Your task to perform on an android device: search for starred emails in the gmail app Image 0: 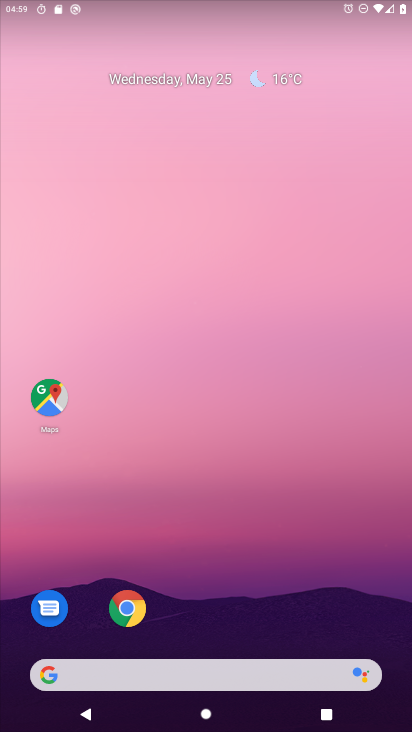
Step 0: drag from (275, 555) to (280, 77)
Your task to perform on an android device: search for starred emails in the gmail app Image 1: 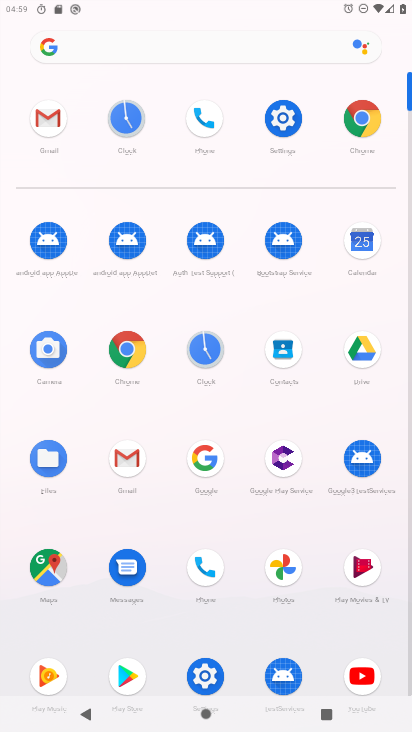
Step 1: click (41, 125)
Your task to perform on an android device: search for starred emails in the gmail app Image 2: 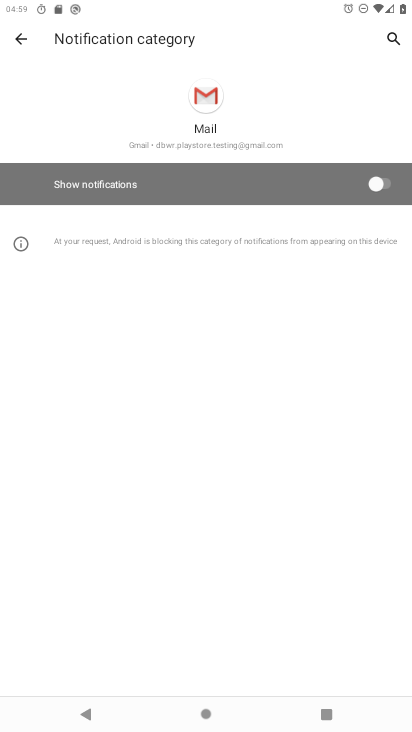
Step 2: click (22, 32)
Your task to perform on an android device: search for starred emails in the gmail app Image 3: 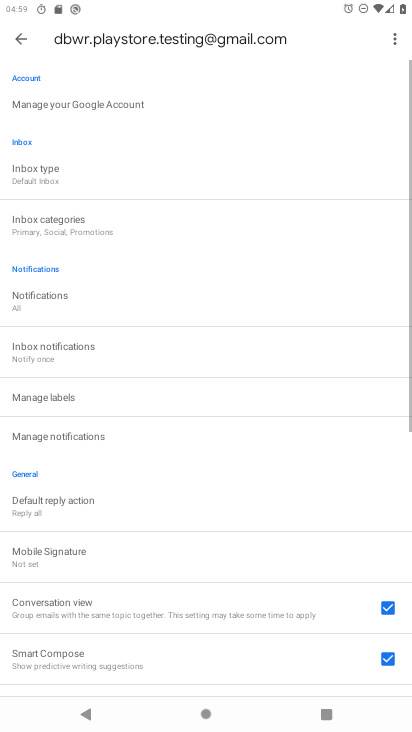
Step 3: click (23, 33)
Your task to perform on an android device: search for starred emails in the gmail app Image 4: 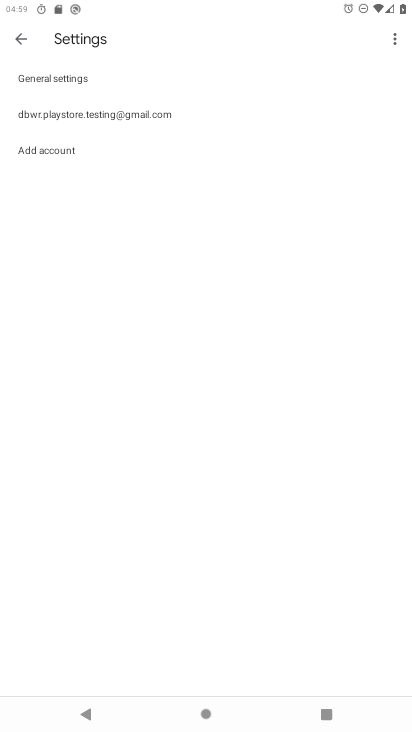
Step 4: click (23, 33)
Your task to perform on an android device: search for starred emails in the gmail app Image 5: 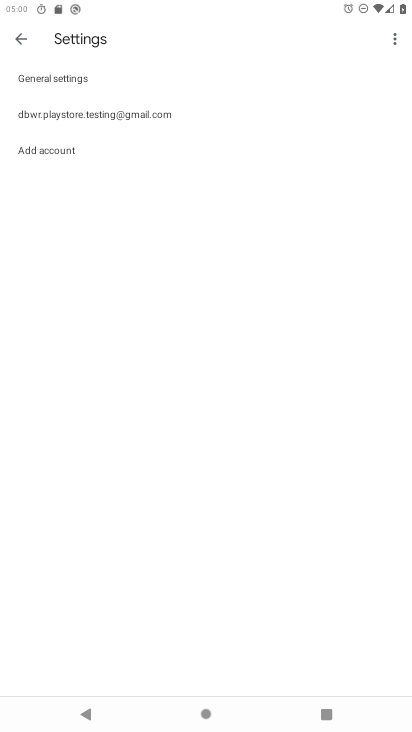
Step 5: click (23, 33)
Your task to perform on an android device: search for starred emails in the gmail app Image 6: 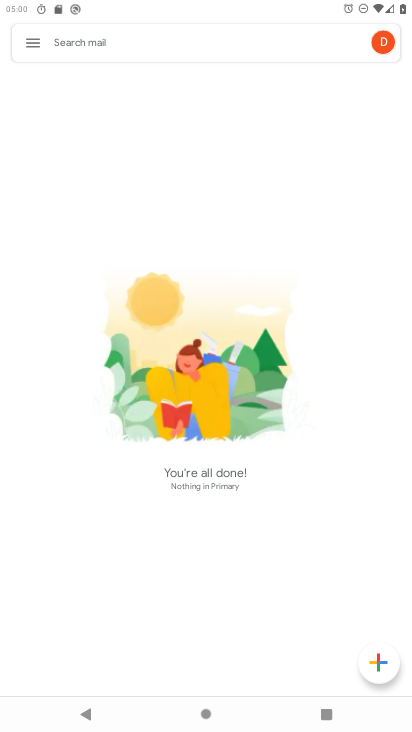
Step 6: click (24, 34)
Your task to perform on an android device: search for starred emails in the gmail app Image 7: 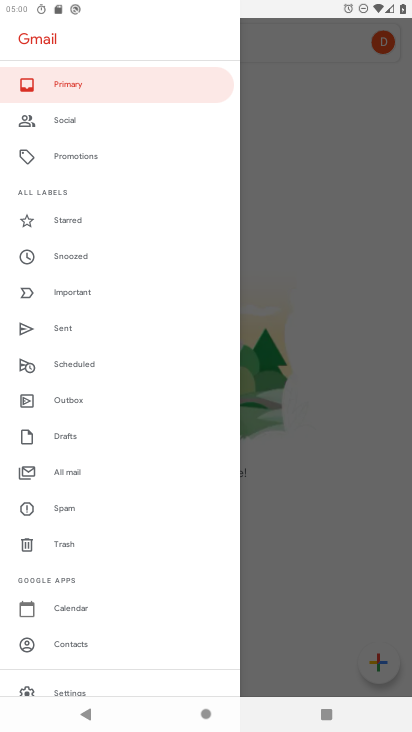
Step 7: click (77, 223)
Your task to perform on an android device: search for starred emails in the gmail app Image 8: 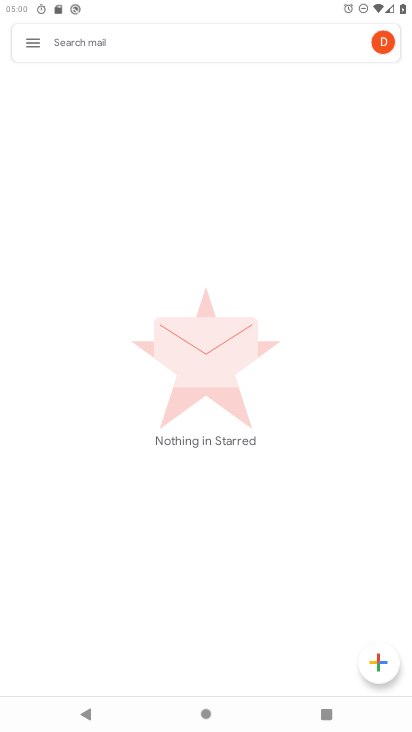
Step 8: task complete